Your task to perform on an android device: Search for Italian restaurants on Maps Image 0: 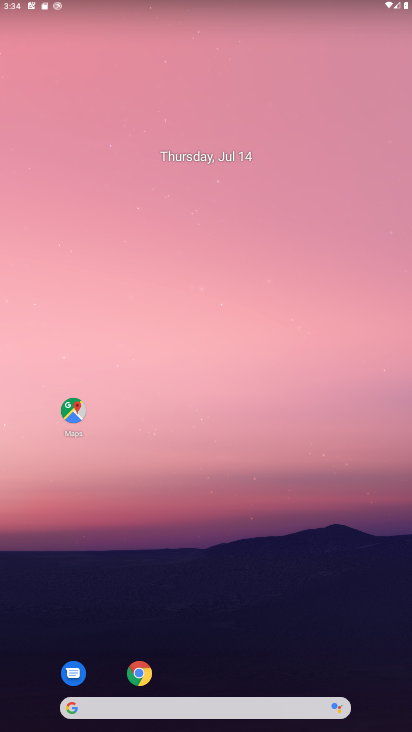
Step 0: press home button
Your task to perform on an android device: Search for Italian restaurants on Maps Image 1: 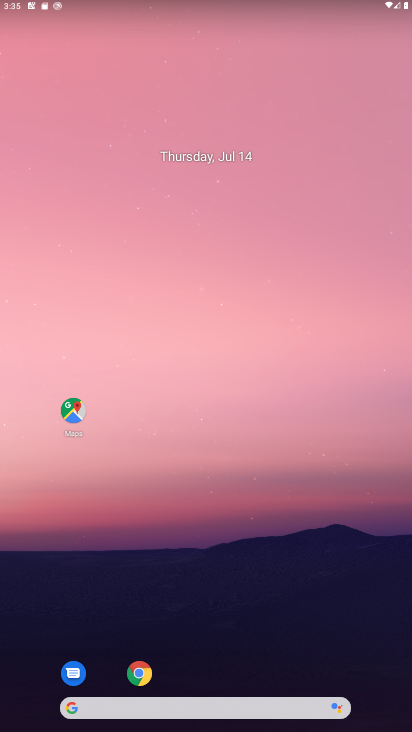
Step 1: click (72, 408)
Your task to perform on an android device: Search for Italian restaurants on Maps Image 2: 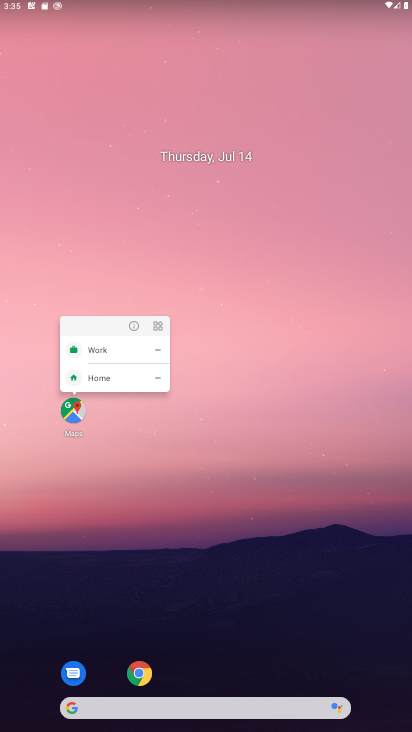
Step 2: click (73, 407)
Your task to perform on an android device: Search for Italian restaurants on Maps Image 3: 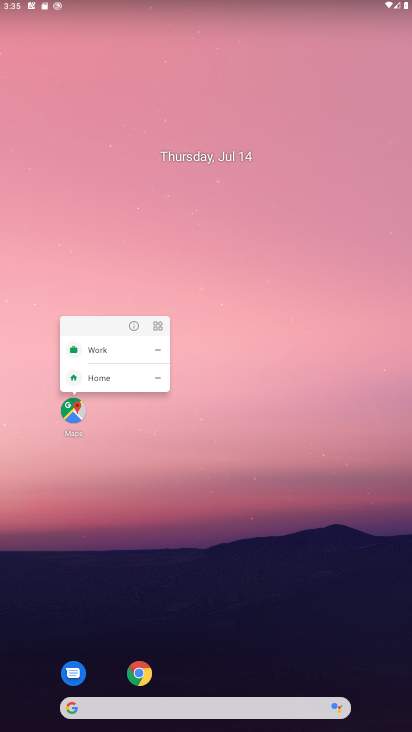
Step 3: click (68, 408)
Your task to perform on an android device: Search for Italian restaurants on Maps Image 4: 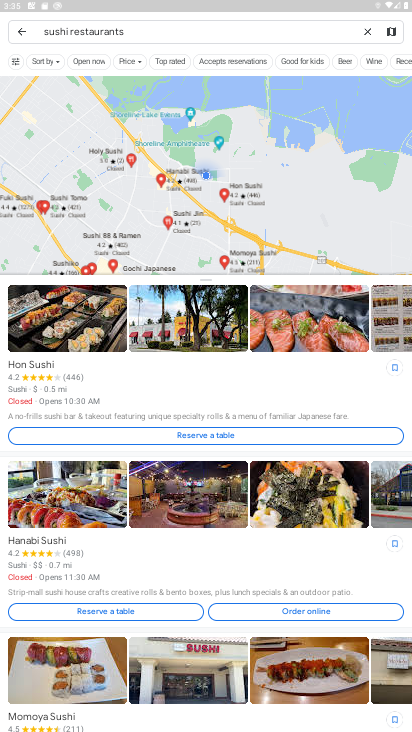
Step 4: click (366, 29)
Your task to perform on an android device: Search for Italian restaurants on Maps Image 5: 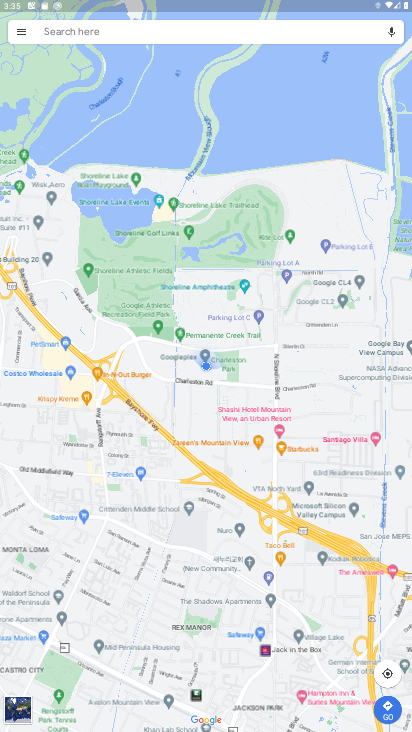
Step 5: type "italian"
Your task to perform on an android device: Search for Italian restaurants on Maps Image 6: 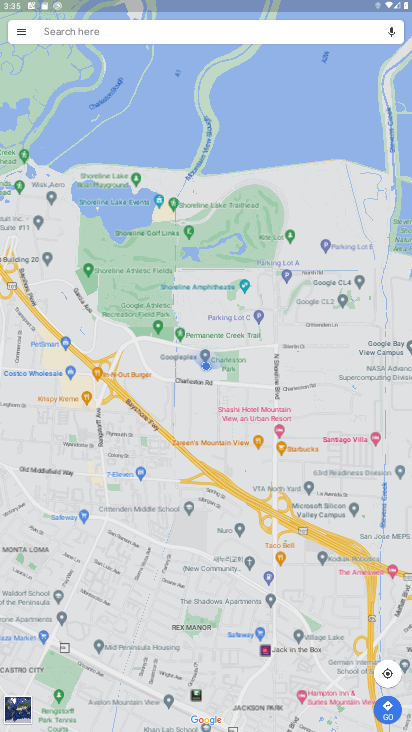
Step 6: click (77, 22)
Your task to perform on an android device: Search for Italian restaurants on Maps Image 7: 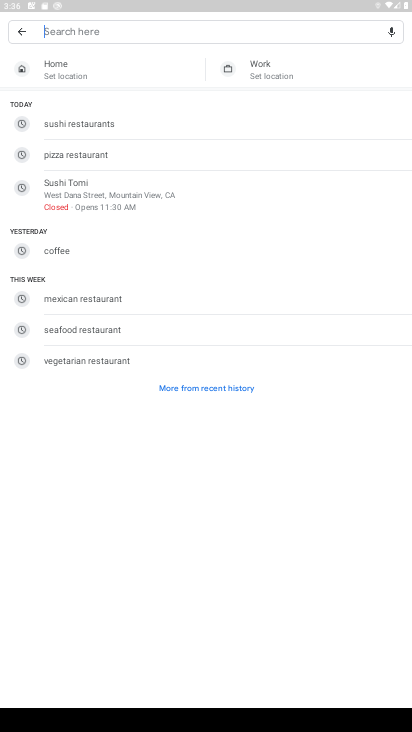
Step 7: type "italian"
Your task to perform on an android device: Search for Italian restaurants on Maps Image 8: 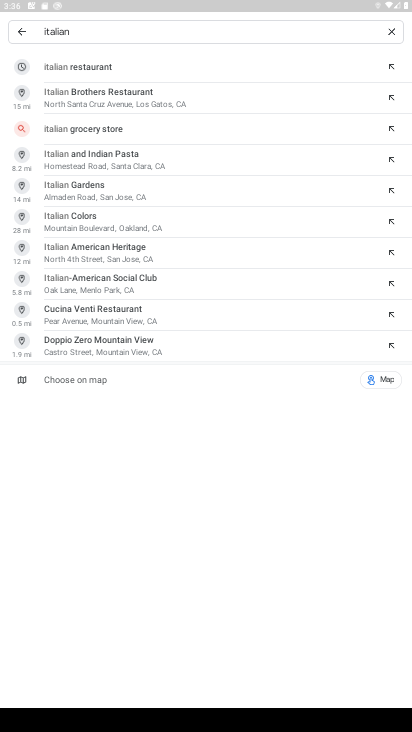
Step 8: click (92, 70)
Your task to perform on an android device: Search for Italian restaurants on Maps Image 9: 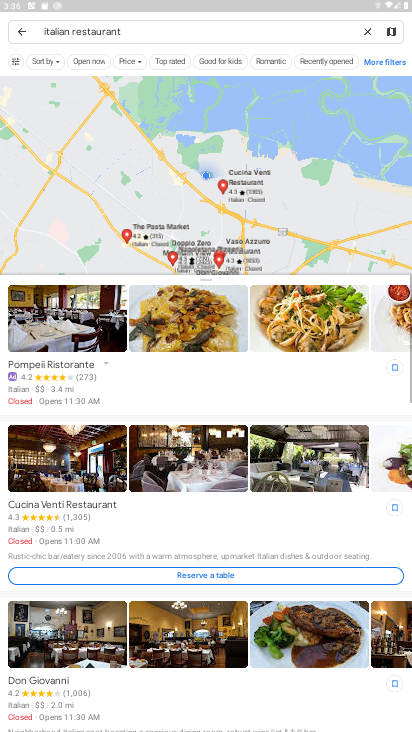
Step 9: task complete